Your task to perform on an android device: Open the calendar app, open the side menu, and click the "Day" option Image 0: 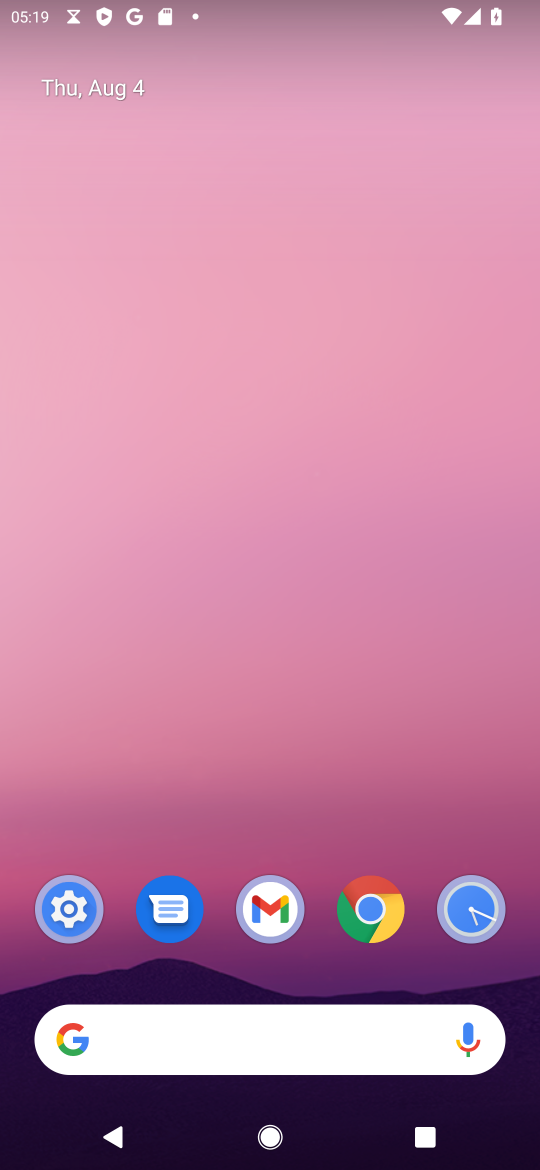
Step 0: drag from (322, 1027) to (527, 145)
Your task to perform on an android device: Open the calendar app, open the side menu, and click the "Day" option Image 1: 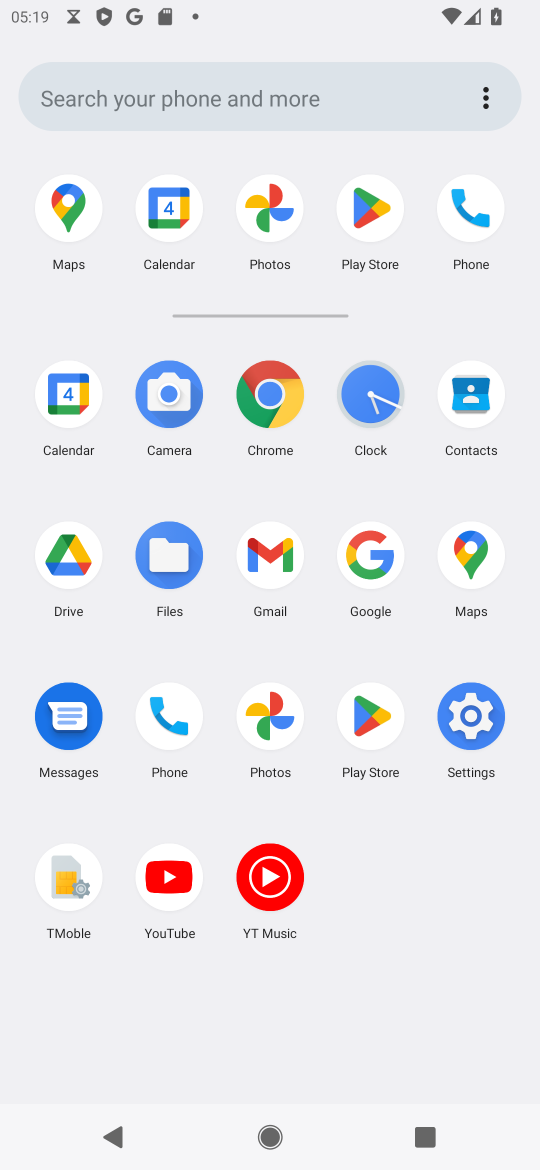
Step 1: click (64, 396)
Your task to perform on an android device: Open the calendar app, open the side menu, and click the "Day" option Image 2: 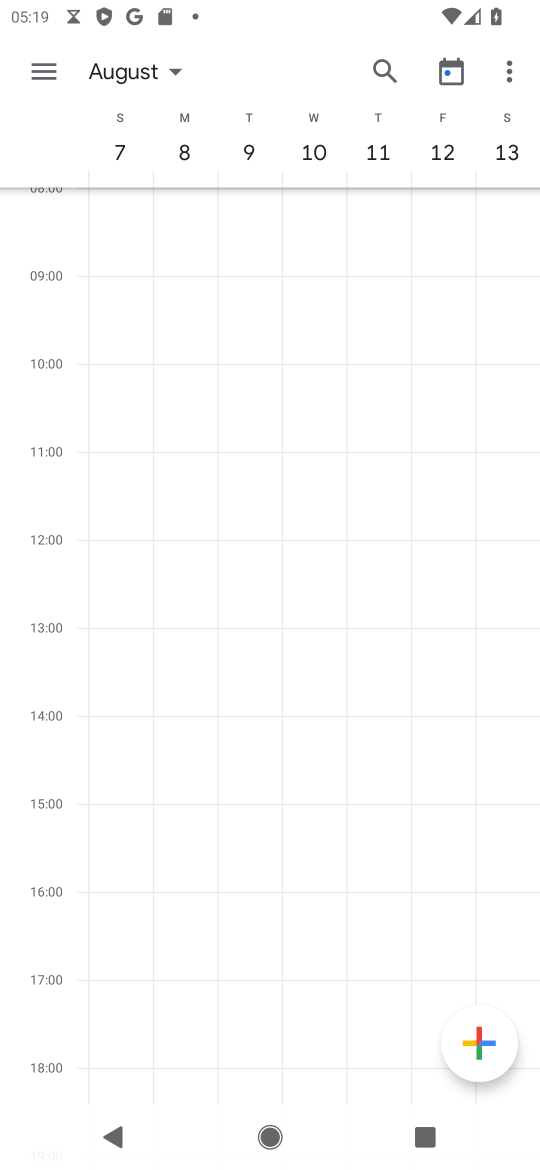
Step 2: click (49, 78)
Your task to perform on an android device: Open the calendar app, open the side menu, and click the "Day" option Image 3: 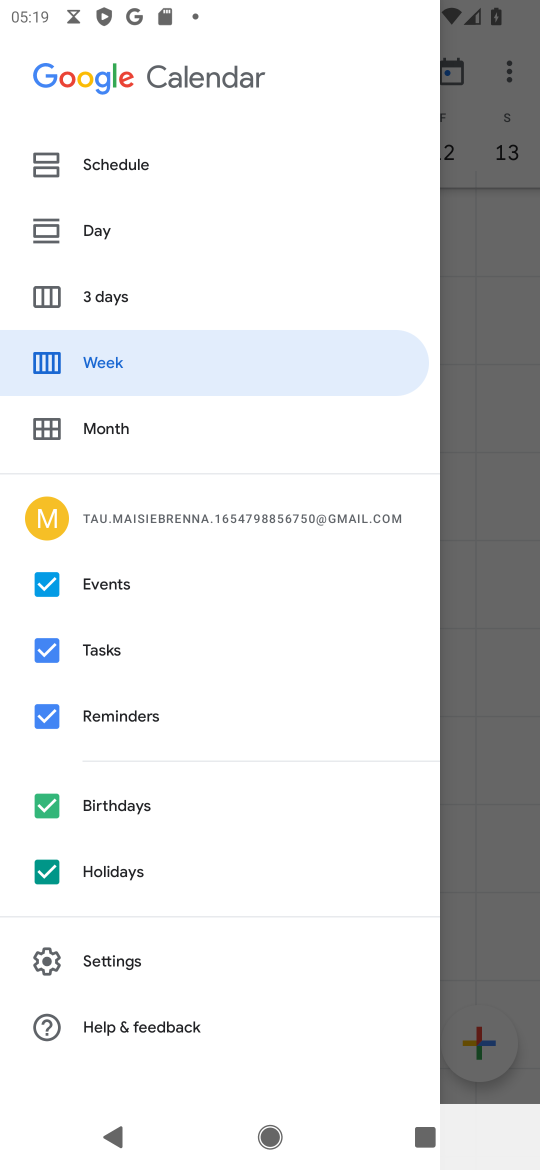
Step 3: click (110, 232)
Your task to perform on an android device: Open the calendar app, open the side menu, and click the "Day" option Image 4: 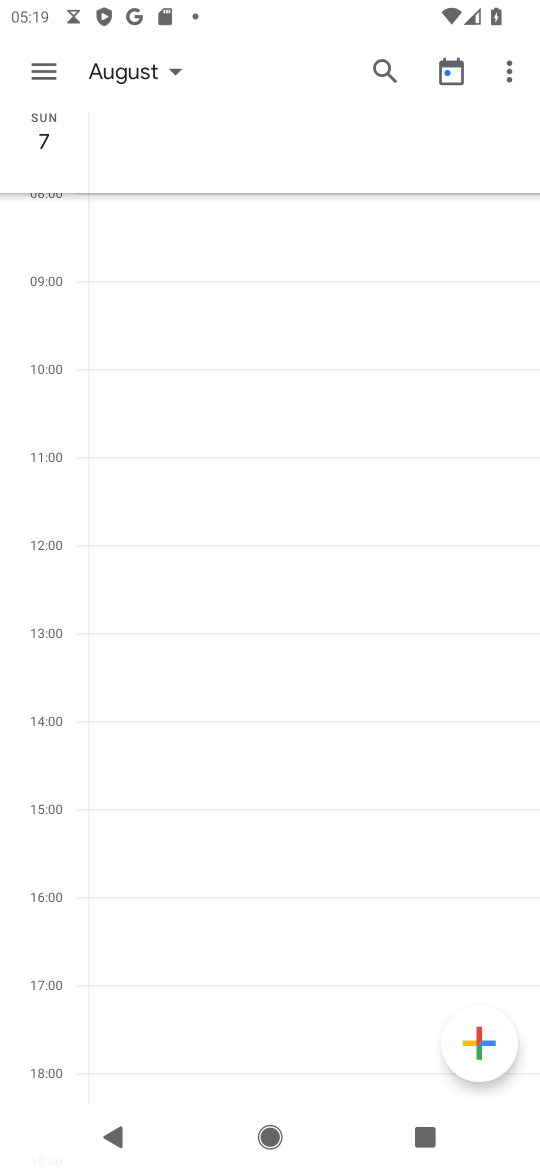
Step 4: task complete